Your task to perform on an android device: Open network settings Image 0: 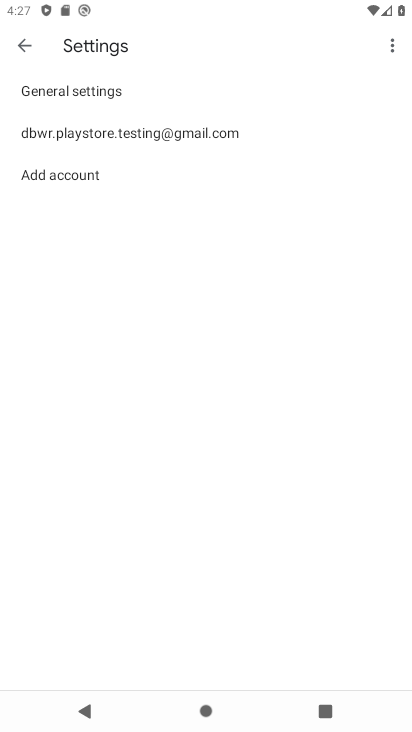
Step 0: press back button
Your task to perform on an android device: Open network settings Image 1: 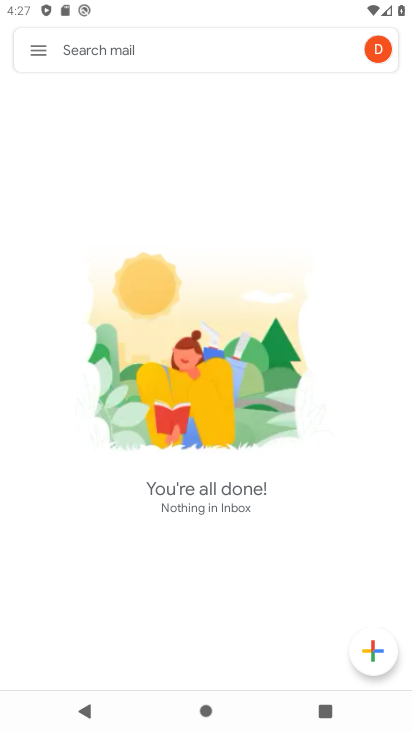
Step 1: press back button
Your task to perform on an android device: Open network settings Image 2: 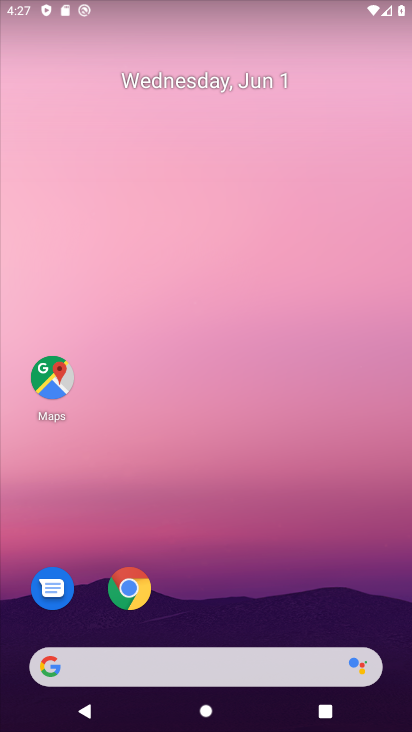
Step 2: drag from (231, 590) to (226, 234)
Your task to perform on an android device: Open network settings Image 3: 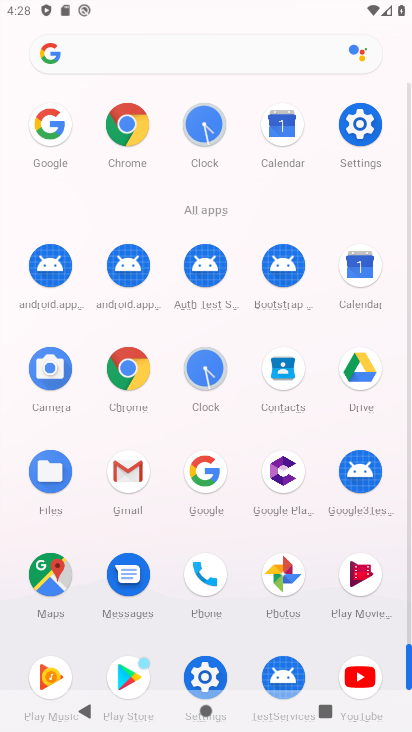
Step 3: click (360, 122)
Your task to perform on an android device: Open network settings Image 4: 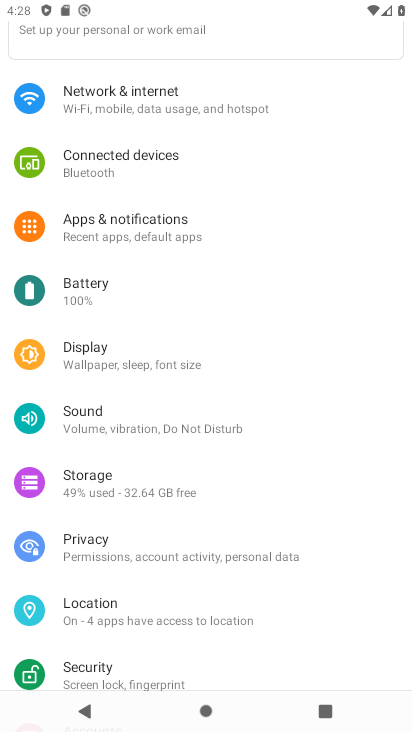
Step 4: click (124, 108)
Your task to perform on an android device: Open network settings Image 5: 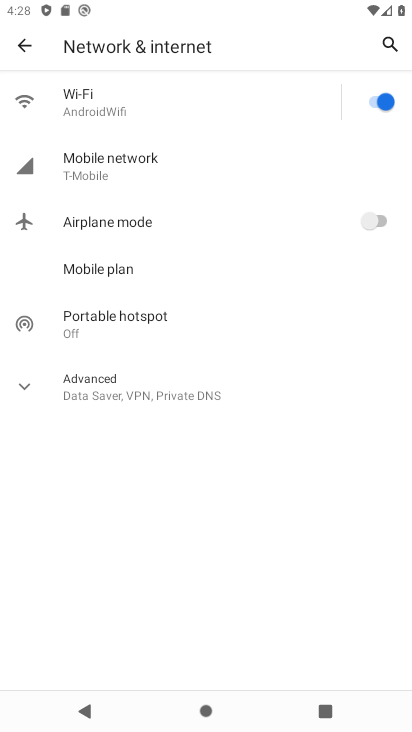
Step 5: task complete